Your task to perform on an android device: View the shopping cart on target. Search for razer thresher on target, select the first entry, add it to the cart, then select checkout. Image 0: 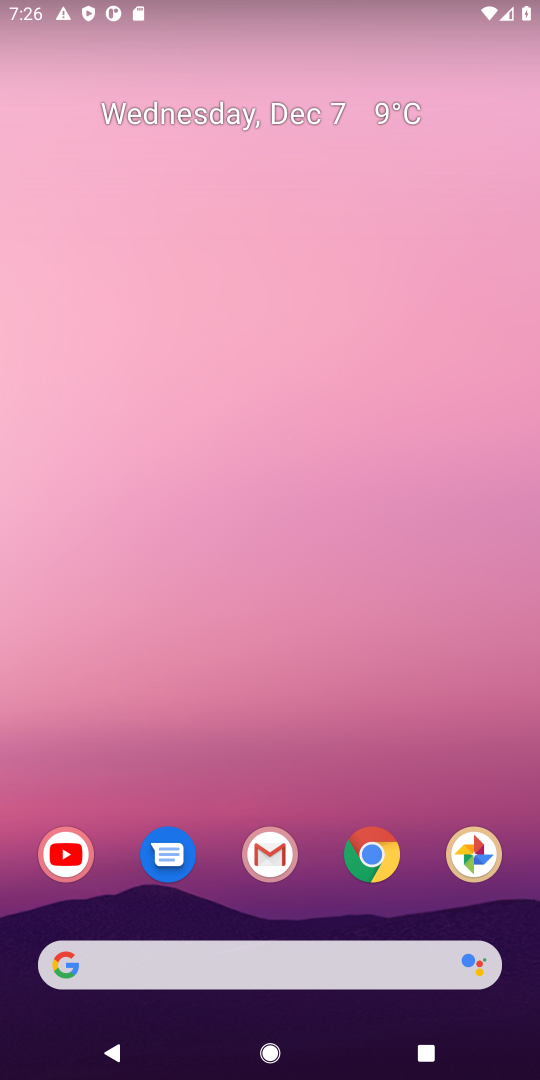
Step 0: click (238, 969)
Your task to perform on an android device: View the shopping cart on target. Search for razer thresher on target, select the first entry, add it to the cart, then select checkout. Image 1: 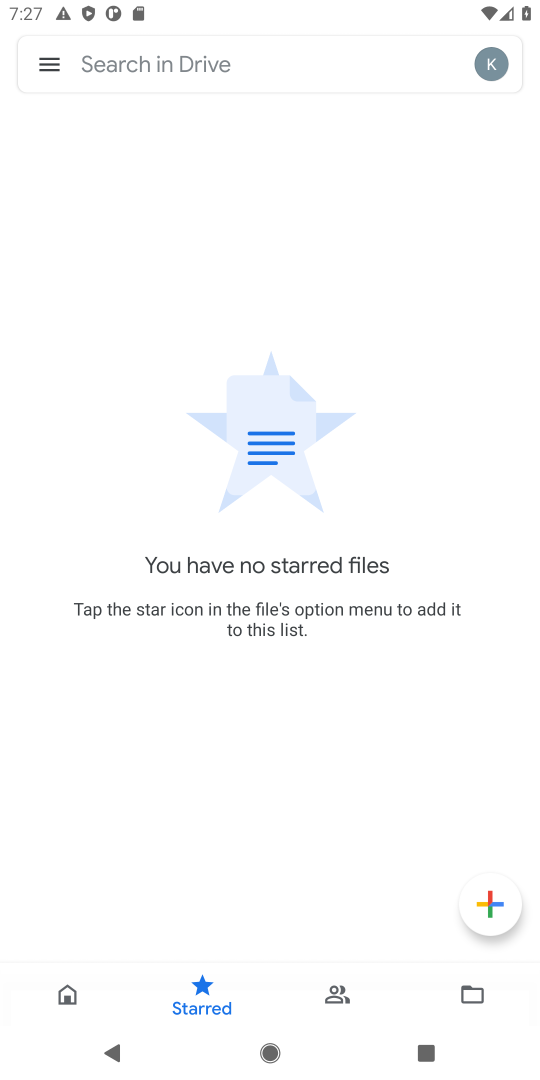
Step 1: press home button
Your task to perform on an android device: View the shopping cart on target. Search for razer thresher on target, select the first entry, add it to the cart, then select checkout. Image 2: 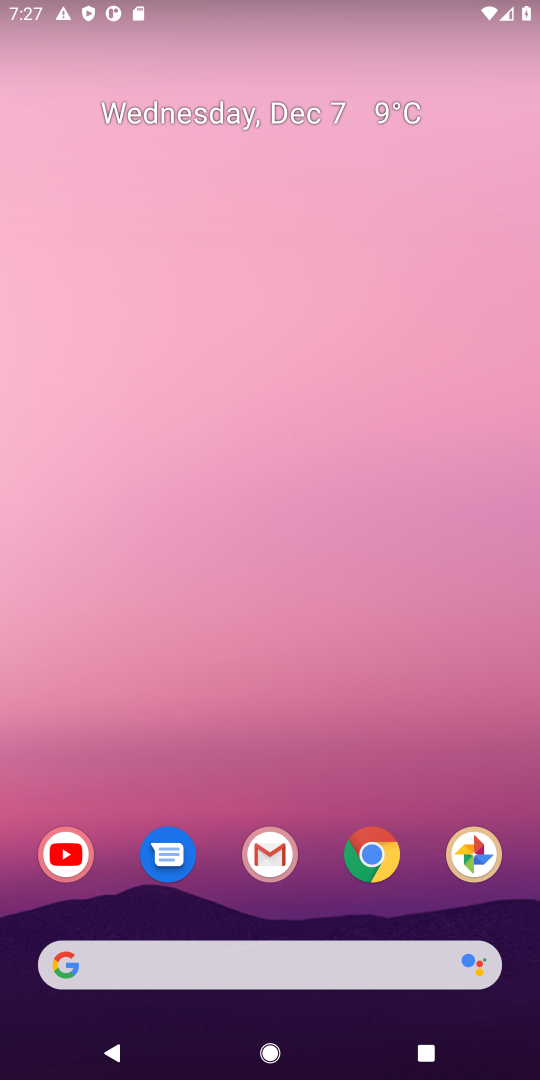
Step 2: click (309, 975)
Your task to perform on an android device: View the shopping cart on target. Search for razer thresher on target, select the first entry, add it to the cart, then select checkout. Image 3: 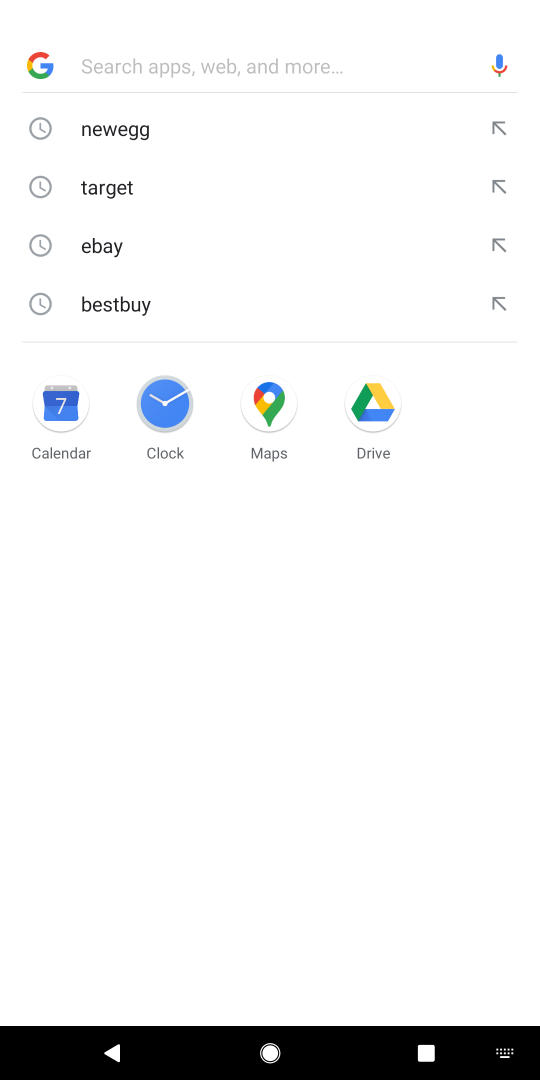
Step 3: type "target"
Your task to perform on an android device: View the shopping cart on target. Search for razer thresher on target, select the first entry, add it to the cart, then select checkout. Image 4: 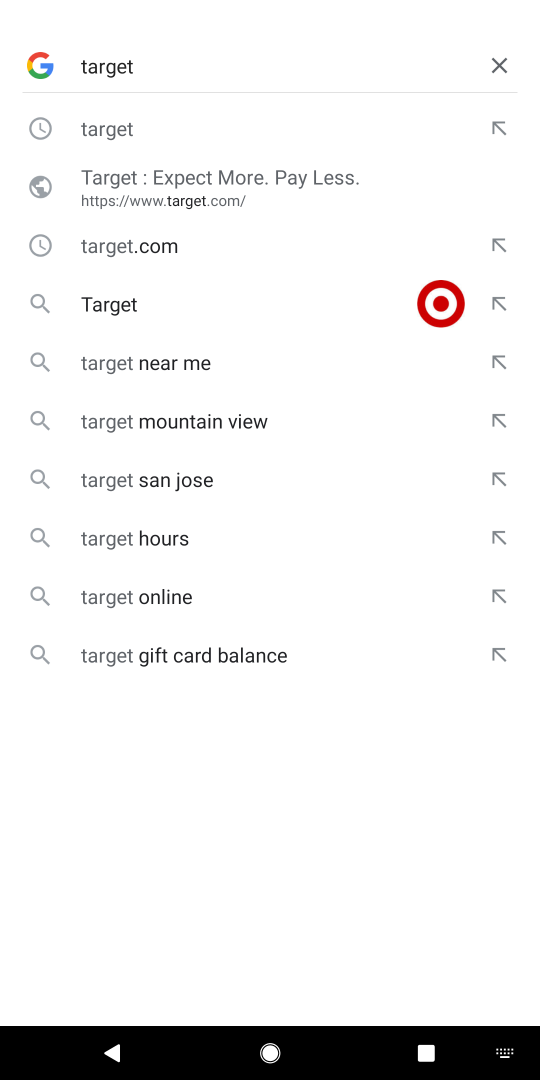
Step 4: click (133, 296)
Your task to perform on an android device: View the shopping cart on target. Search for razer thresher on target, select the first entry, add it to the cart, then select checkout. Image 5: 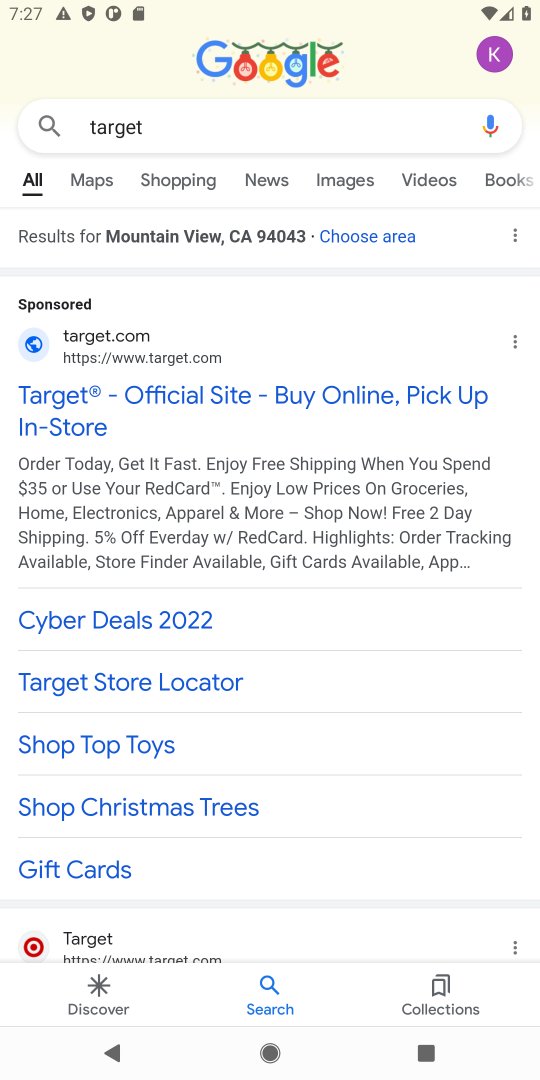
Step 5: click (134, 394)
Your task to perform on an android device: View the shopping cart on target. Search for razer thresher on target, select the first entry, add it to the cart, then select checkout. Image 6: 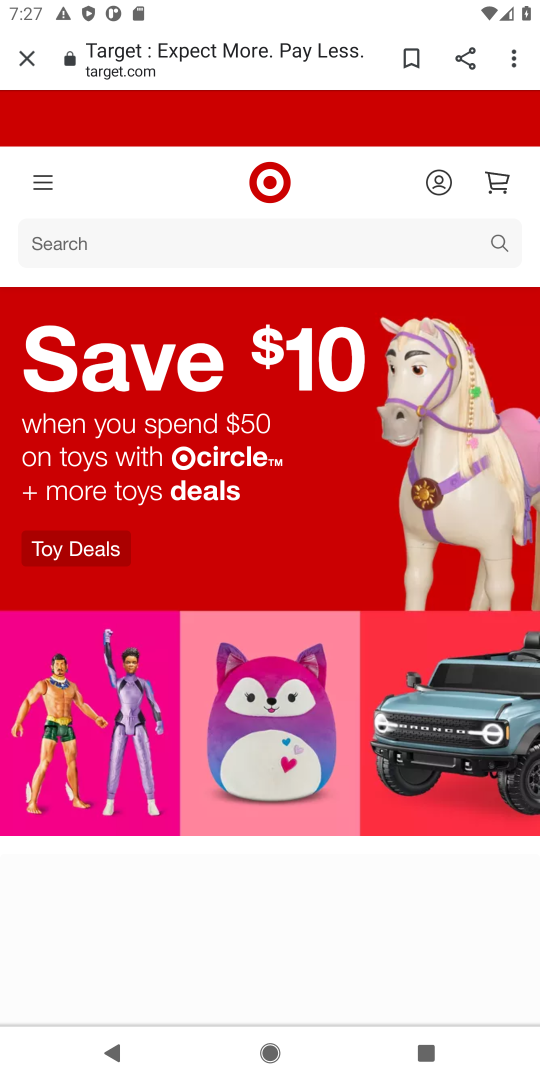
Step 6: click (139, 242)
Your task to perform on an android device: View the shopping cart on target. Search for razer thresher on target, select the first entry, add it to the cart, then select checkout. Image 7: 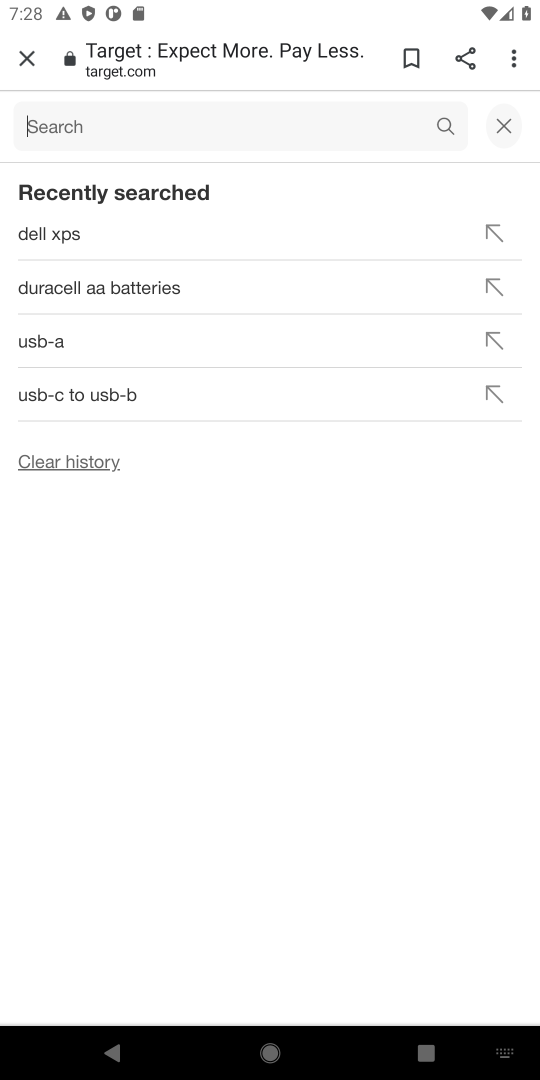
Step 7: type "razer thresher"
Your task to perform on an android device: View the shopping cart on target. Search for razer thresher on target, select the first entry, add it to the cart, then select checkout. Image 8: 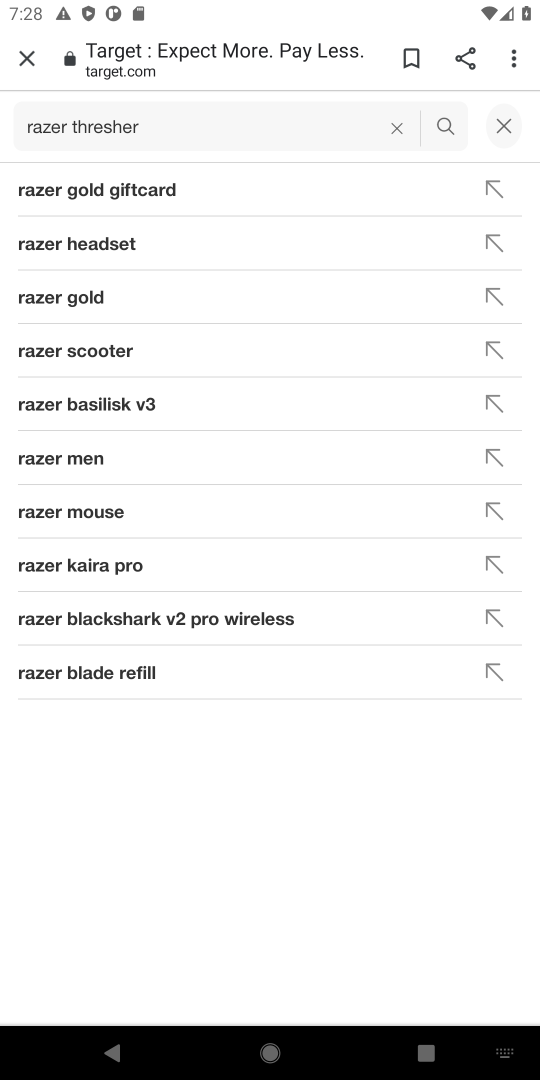
Step 8: click (450, 131)
Your task to perform on an android device: View the shopping cart on target. Search for razer thresher on target, select the first entry, add it to the cart, then select checkout. Image 9: 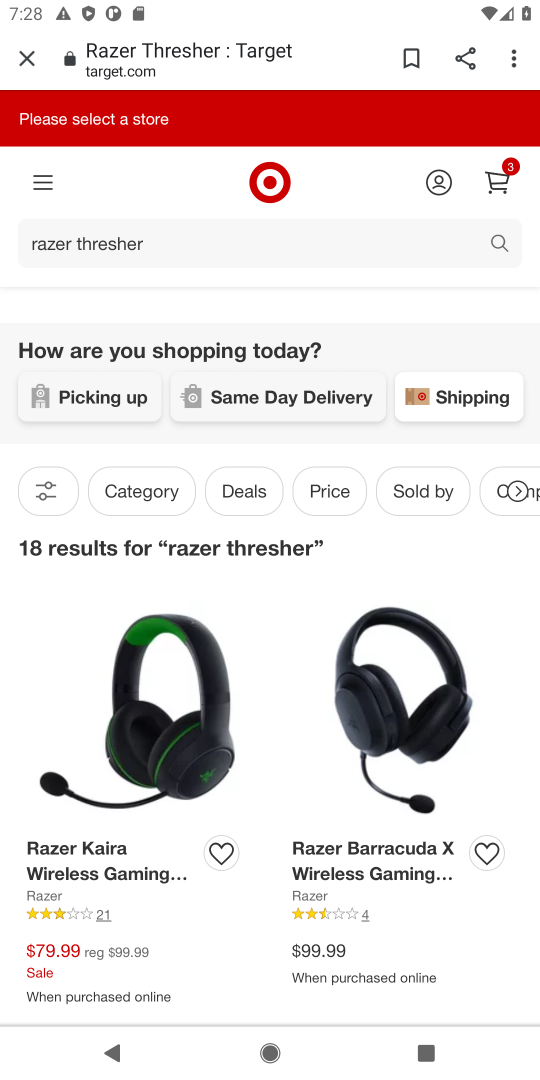
Step 9: click (117, 822)
Your task to perform on an android device: View the shopping cart on target. Search for razer thresher on target, select the first entry, add it to the cart, then select checkout. Image 10: 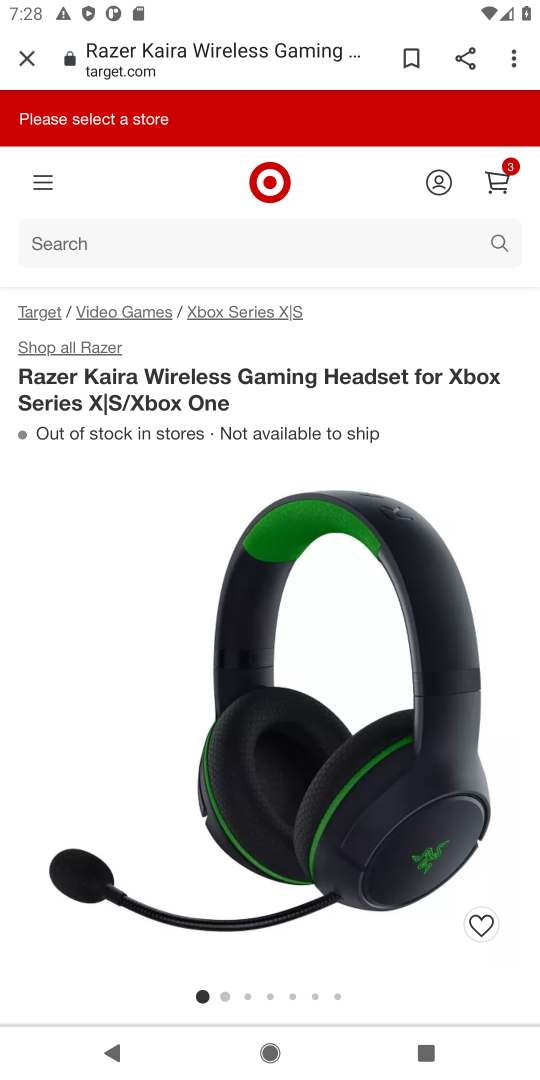
Step 10: drag from (162, 978) to (131, 237)
Your task to perform on an android device: View the shopping cart on target. Search for razer thresher on target, select the first entry, add it to the cart, then select checkout. Image 11: 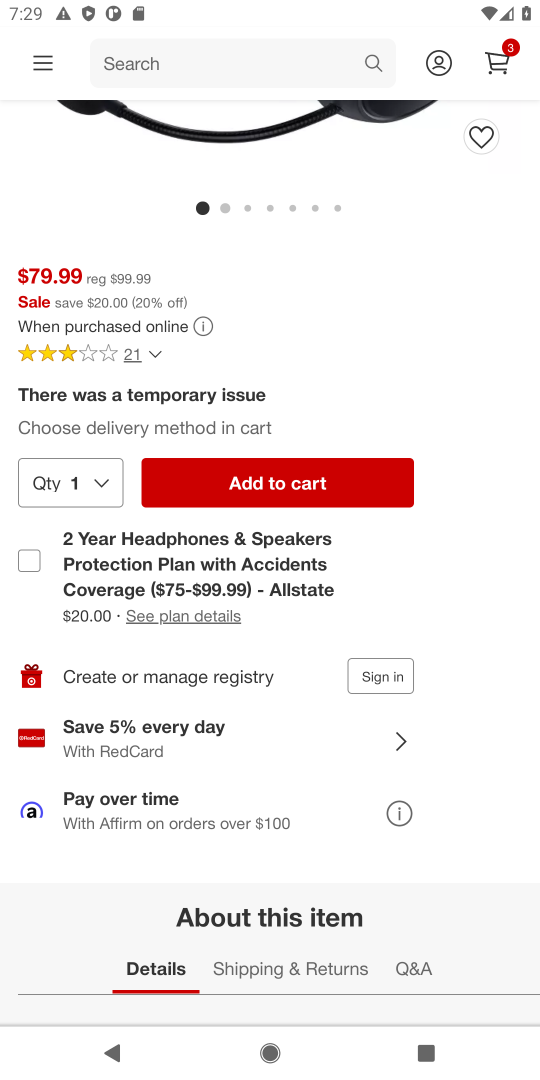
Step 11: click (346, 468)
Your task to perform on an android device: View the shopping cart on target. Search for razer thresher on target, select the first entry, add it to the cart, then select checkout. Image 12: 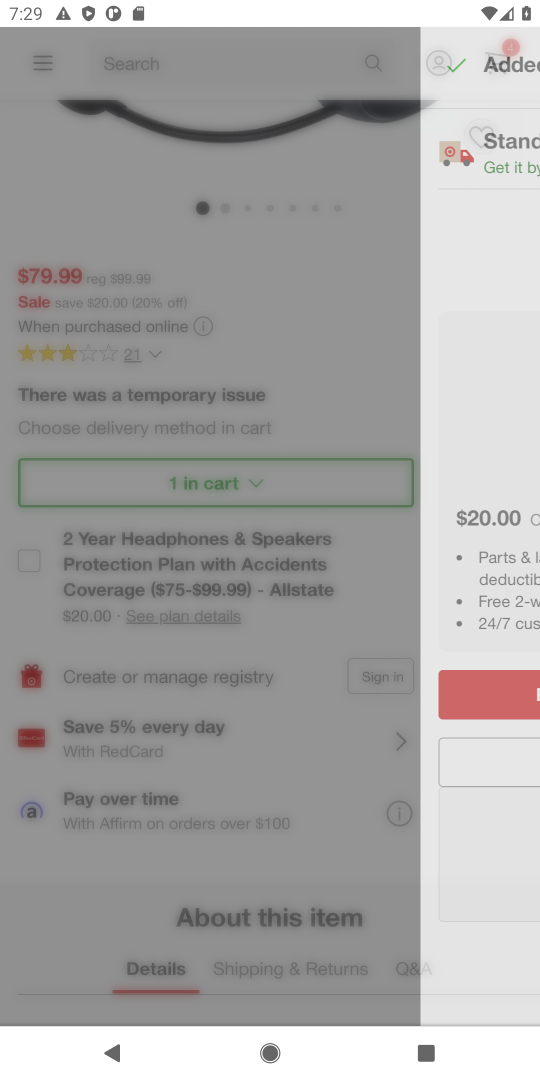
Step 12: task complete